Your task to perform on an android device: Search for Italian restaurants on Maps Image 0: 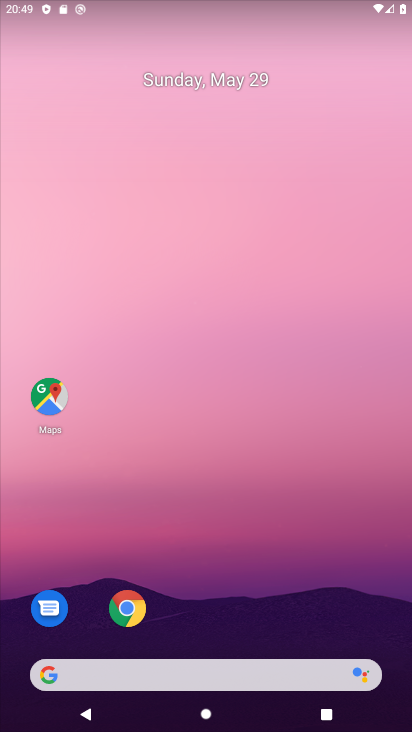
Step 0: drag from (367, 624) to (349, 258)
Your task to perform on an android device: Search for Italian restaurants on Maps Image 1: 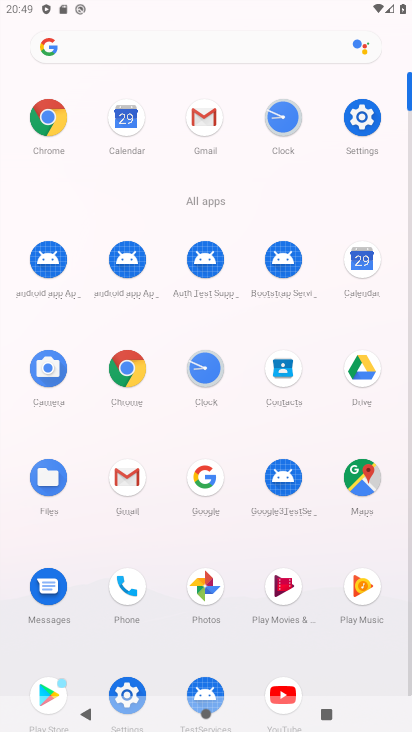
Step 1: click (365, 481)
Your task to perform on an android device: Search for Italian restaurants on Maps Image 2: 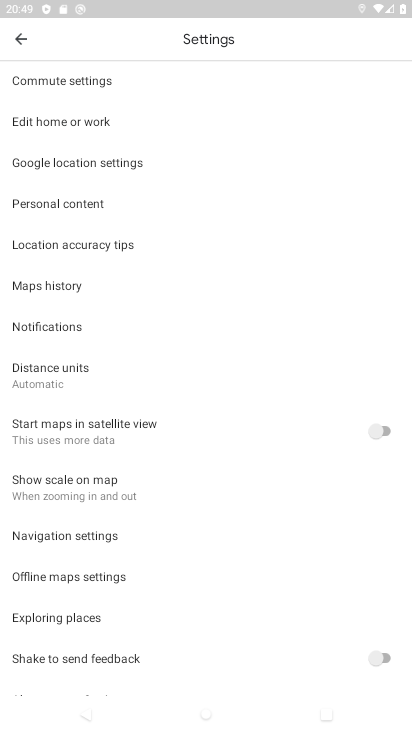
Step 2: press back button
Your task to perform on an android device: Search for Italian restaurants on Maps Image 3: 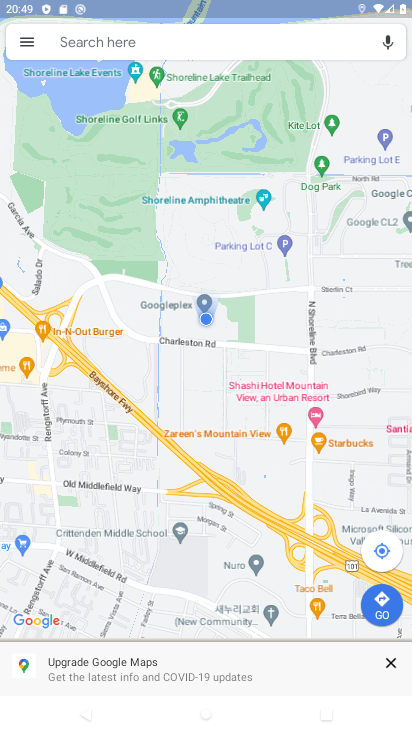
Step 3: click (222, 45)
Your task to perform on an android device: Search for Italian restaurants on Maps Image 4: 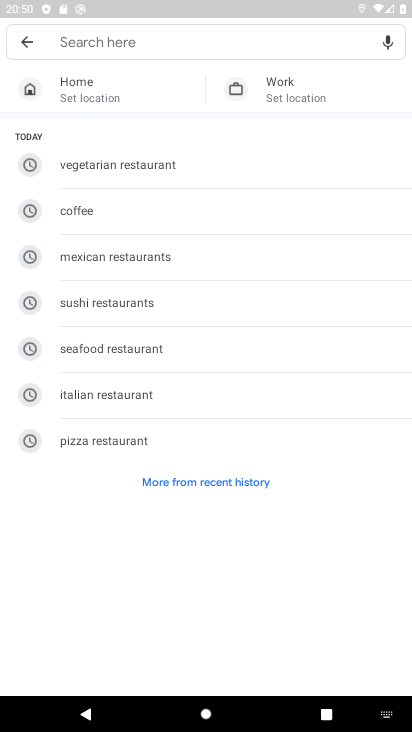
Step 4: type "italian restaurants"
Your task to perform on an android device: Search for Italian restaurants on Maps Image 5: 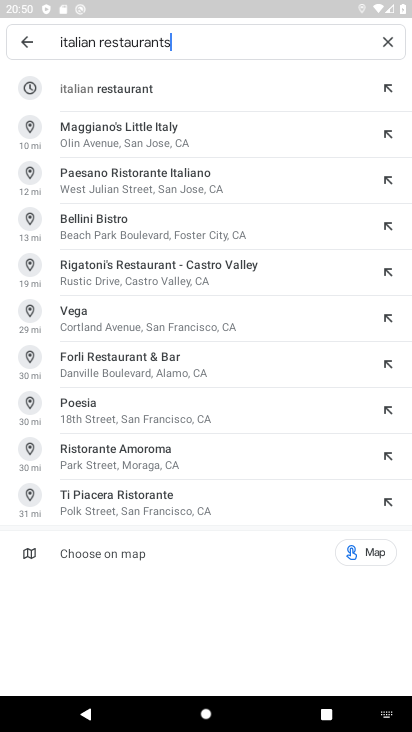
Step 5: click (185, 82)
Your task to perform on an android device: Search for Italian restaurants on Maps Image 6: 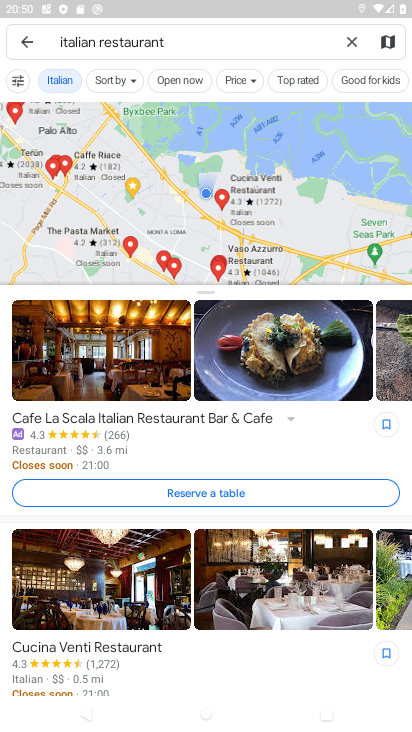
Step 6: task complete